Your task to perform on an android device: Open maps Image 0: 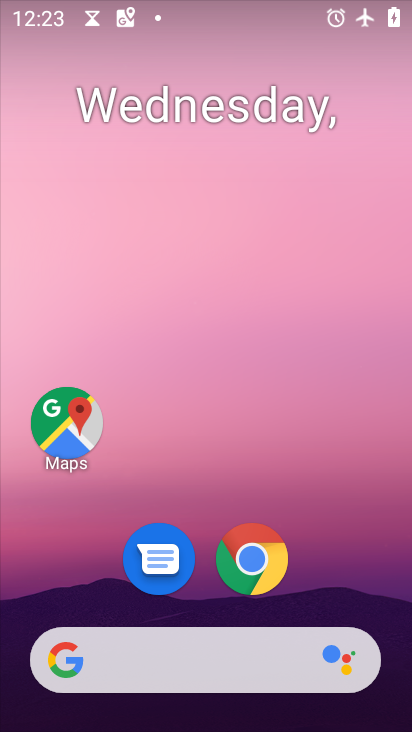
Step 0: drag from (350, 559) to (365, 26)
Your task to perform on an android device: Open maps Image 1: 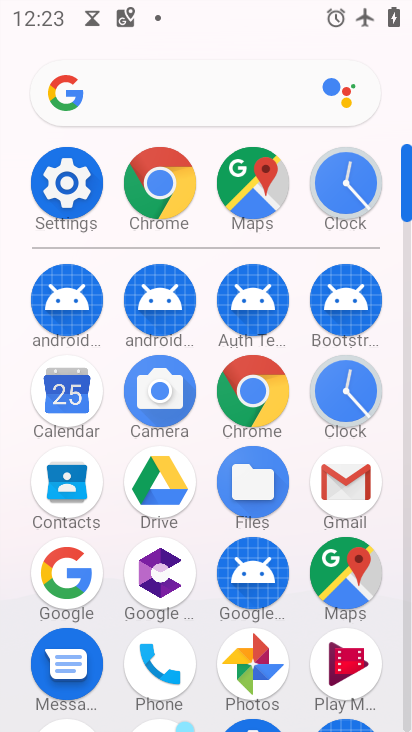
Step 1: click (256, 188)
Your task to perform on an android device: Open maps Image 2: 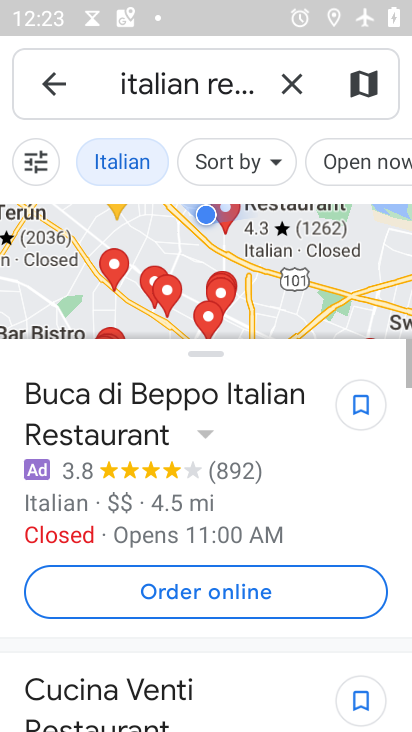
Step 2: task complete